Your task to perform on an android device: Open Google Chrome and open the bookmarks view Image 0: 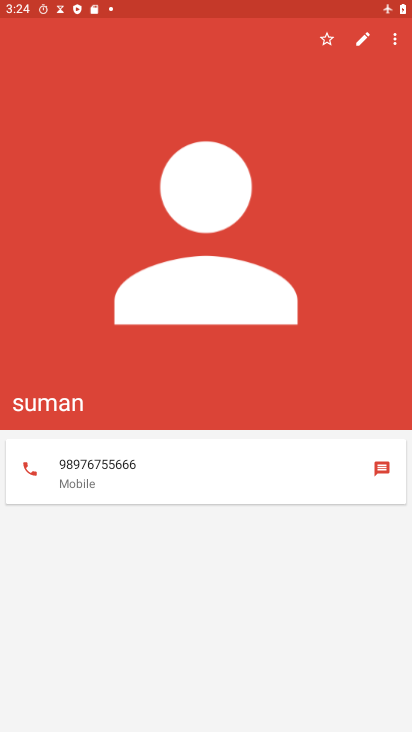
Step 0: press home button
Your task to perform on an android device: Open Google Chrome and open the bookmarks view Image 1: 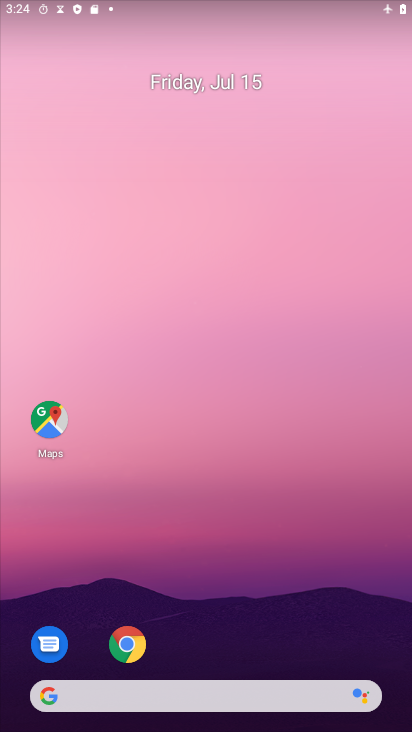
Step 1: drag from (323, 698) to (344, 15)
Your task to perform on an android device: Open Google Chrome and open the bookmarks view Image 2: 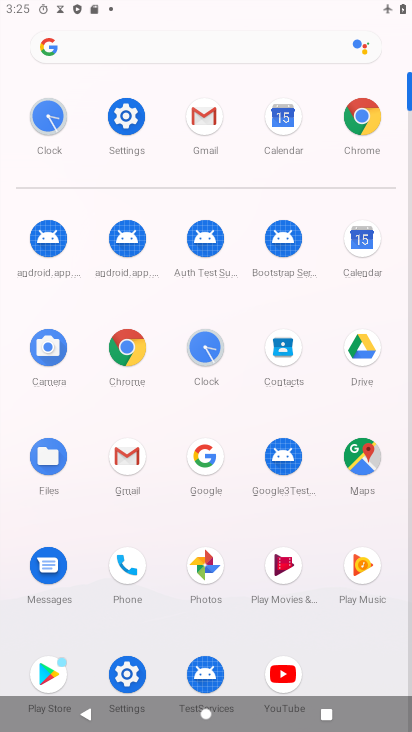
Step 2: click (130, 337)
Your task to perform on an android device: Open Google Chrome and open the bookmarks view Image 3: 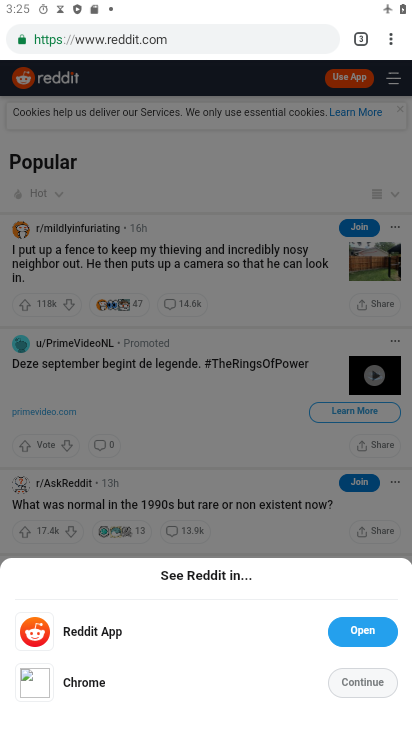
Step 3: drag from (393, 38) to (312, 153)
Your task to perform on an android device: Open Google Chrome and open the bookmarks view Image 4: 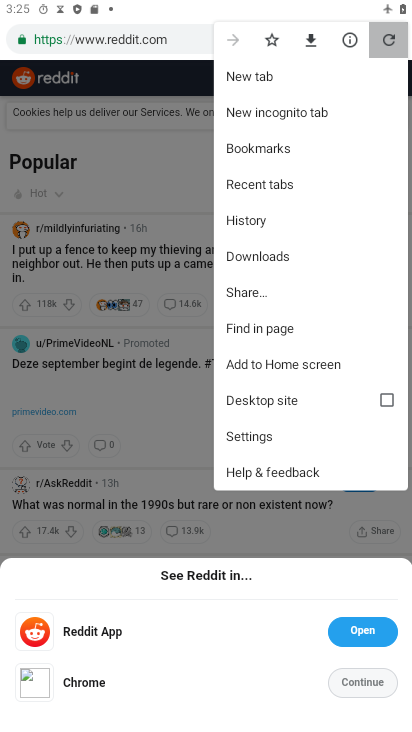
Step 4: click (311, 153)
Your task to perform on an android device: Open Google Chrome and open the bookmarks view Image 5: 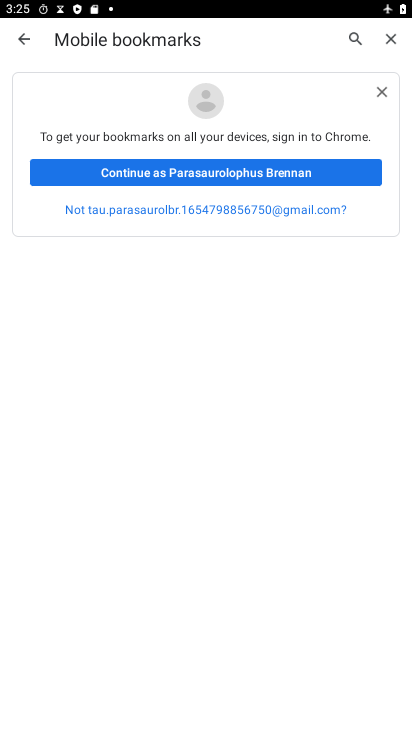
Step 5: task complete